Your task to perform on an android device: Open ESPN.com Image 0: 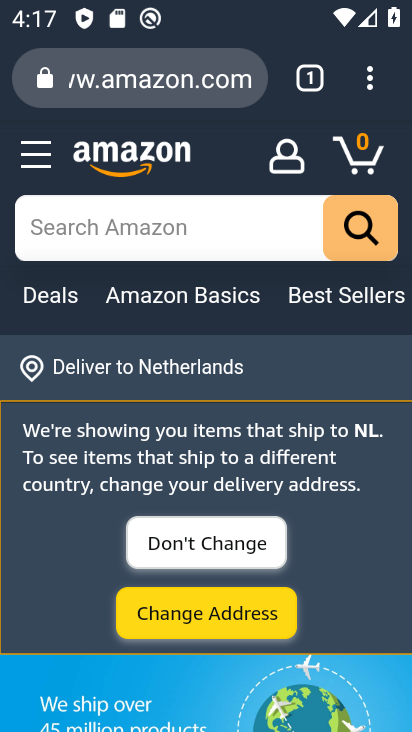
Step 0: drag from (374, 93) to (341, 149)
Your task to perform on an android device: Open ESPN.com Image 1: 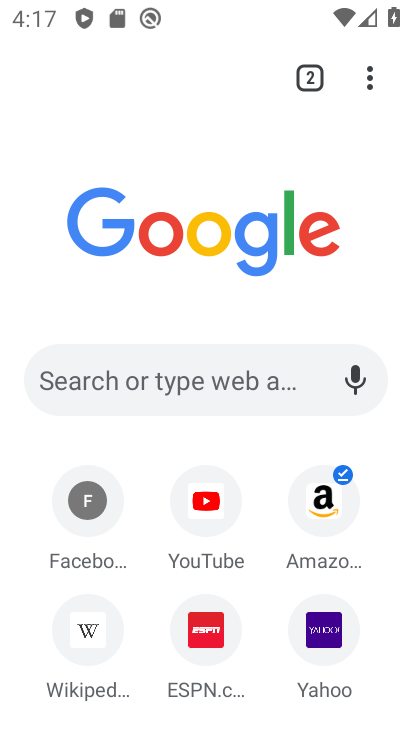
Step 1: click (222, 639)
Your task to perform on an android device: Open ESPN.com Image 2: 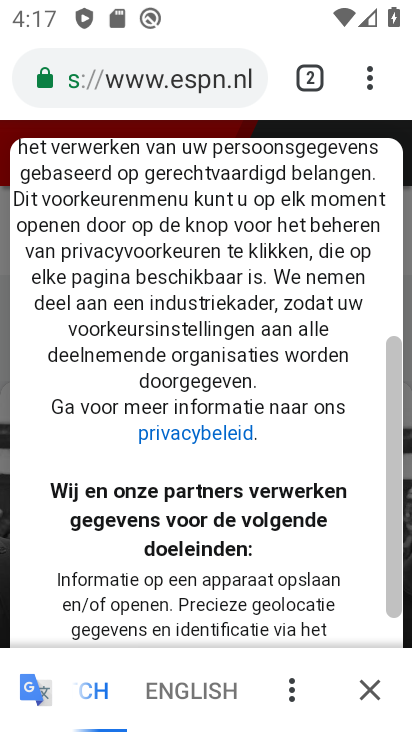
Step 2: click (226, 703)
Your task to perform on an android device: Open ESPN.com Image 3: 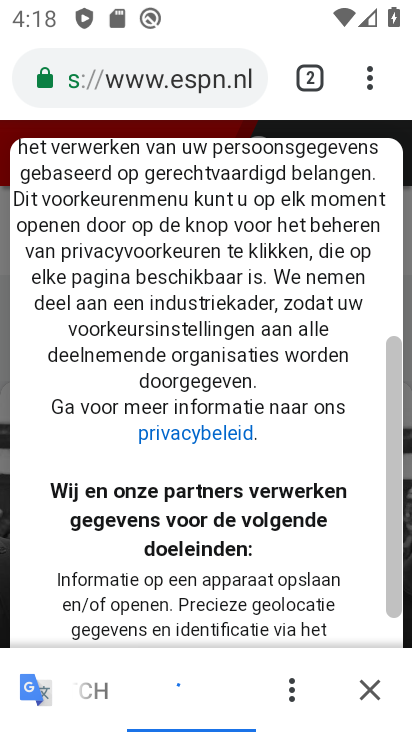
Step 3: click (384, 703)
Your task to perform on an android device: Open ESPN.com Image 4: 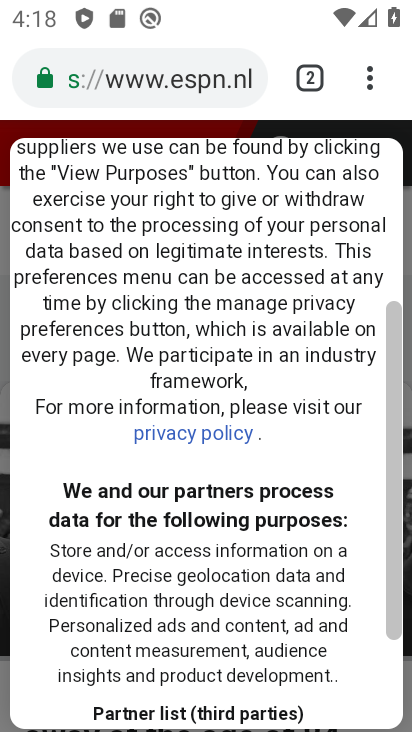
Step 4: drag from (235, 668) to (304, 327)
Your task to perform on an android device: Open ESPN.com Image 5: 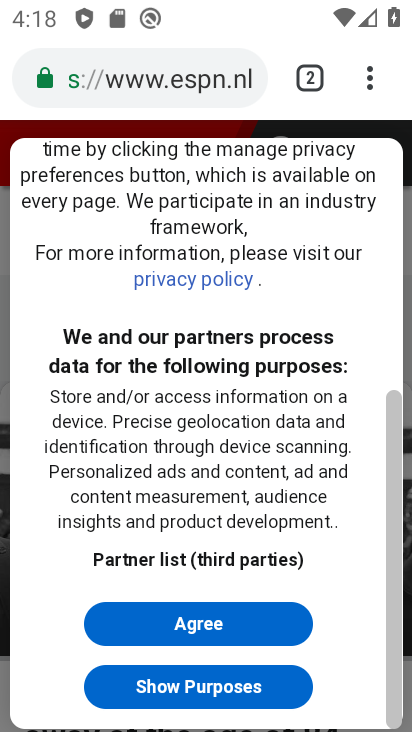
Step 5: click (240, 635)
Your task to perform on an android device: Open ESPN.com Image 6: 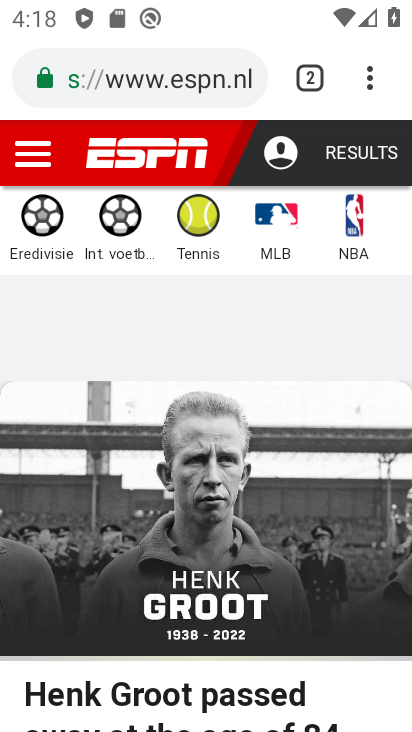
Step 6: task complete